Your task to perform on an android device: read, delete, or share a saved page in the chrome app Image 0: 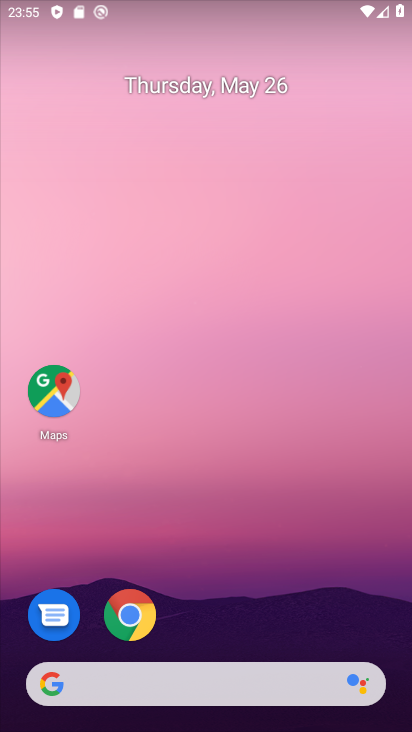
Step 0: click (122, 637)
Your task to perform on an android device: read, delete, or share a saved page in the chrome app Image 1: 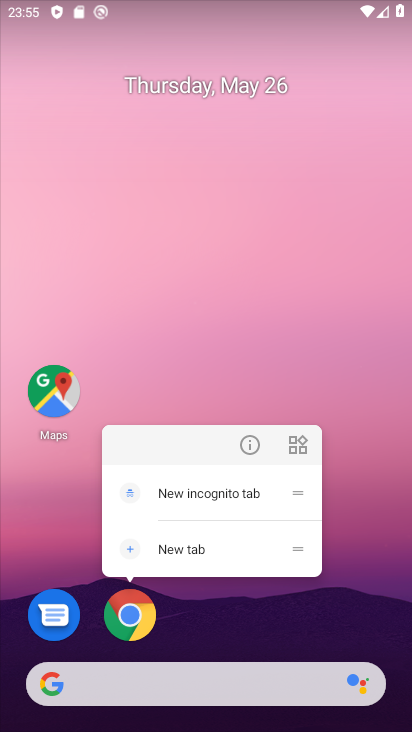
Step 1: click (140, 602)
Your task to perform on an android device: read, delete, or share a saved page in the chrome app Image 2: 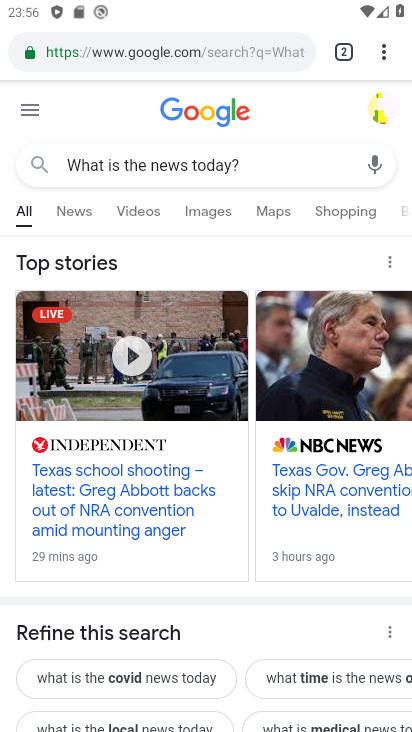
Step 2: drag from (386, 32) to (233, 337)
Your task to perform on an android device: read, delete, or share a saved page in the chrome app Image 3: 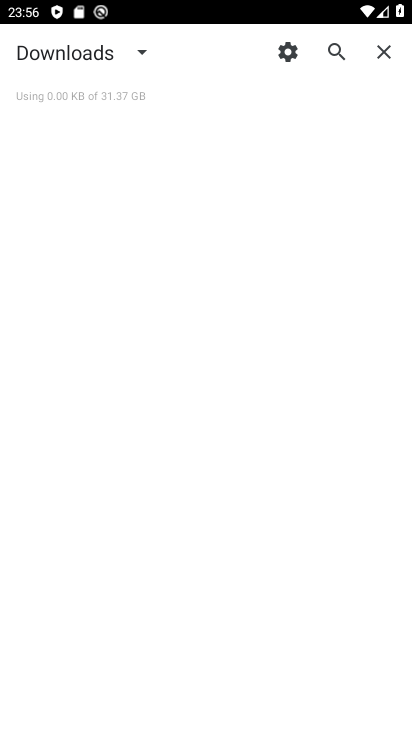
Step 3: click (131, 64)
Your task to perform on an android device: read, delete, or share a saved page in the chrome app Image 4: 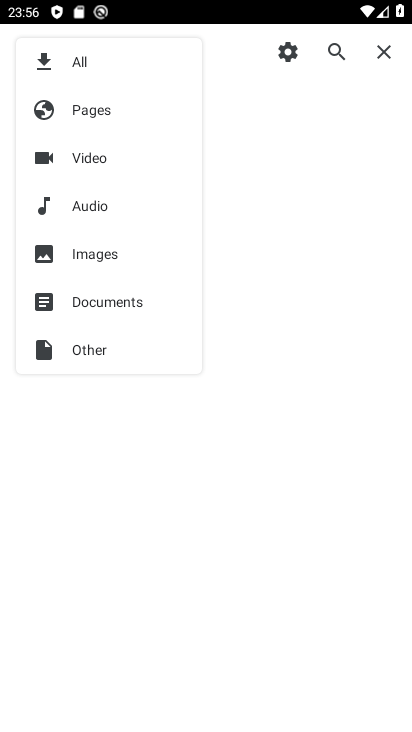
Step 4: click (100, 115)
Your task to perform on an android device: read, delete, or share a saved page in the chrome app Image 5: 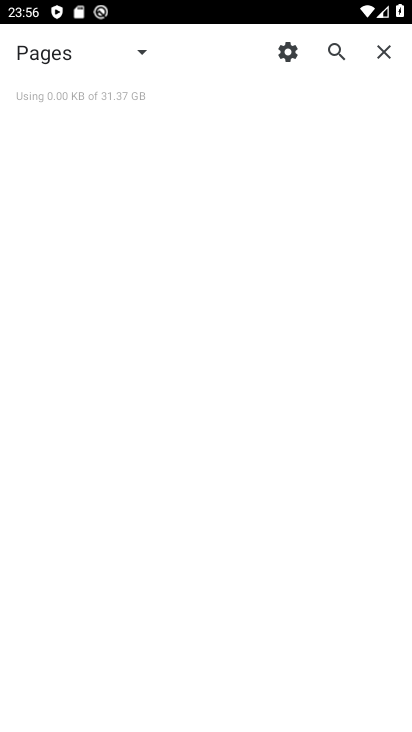
Step 5: task complete